Your task to perform on an android device: What is the news today? Image 0: 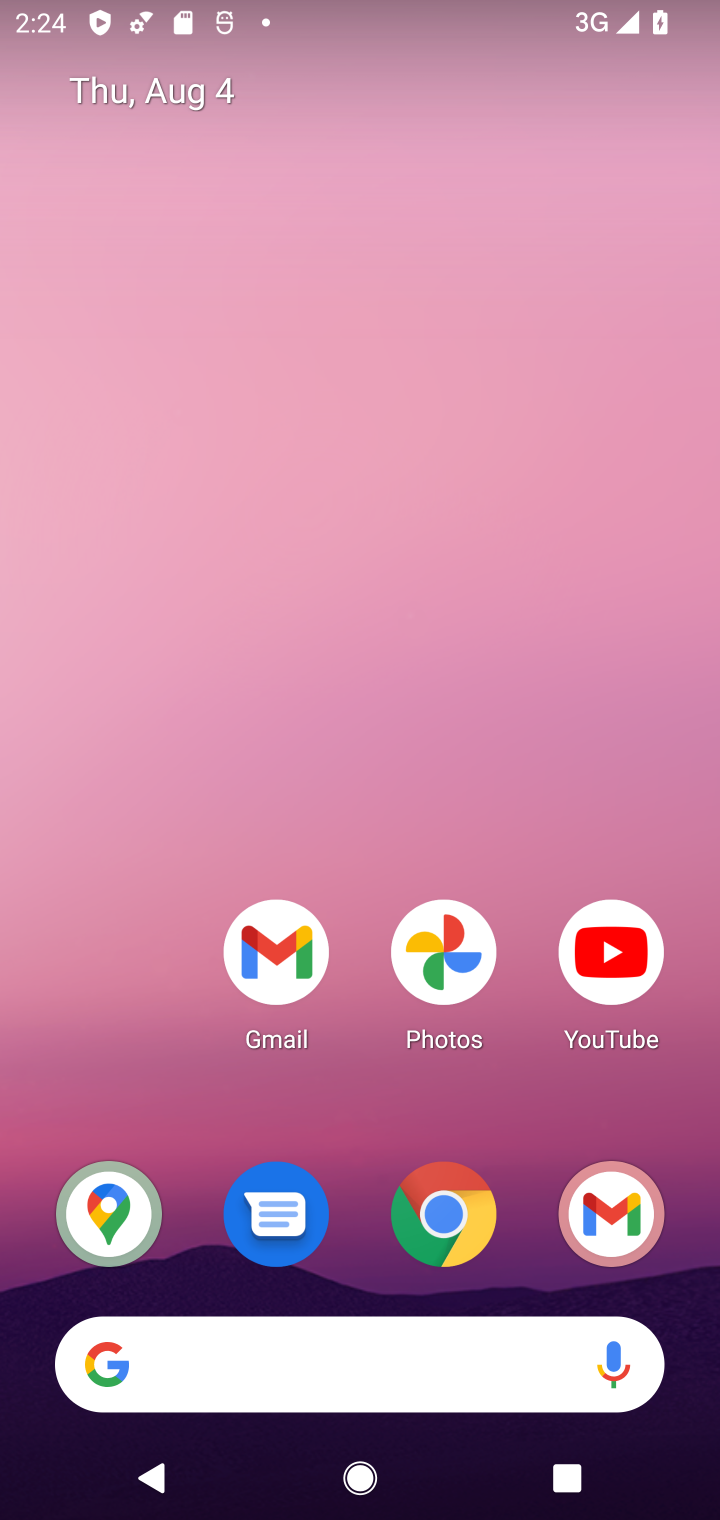
Step 0: drag from (45, 1099) to (127, 4)
Your task to perform on an android device: What is the news today? Image 1: 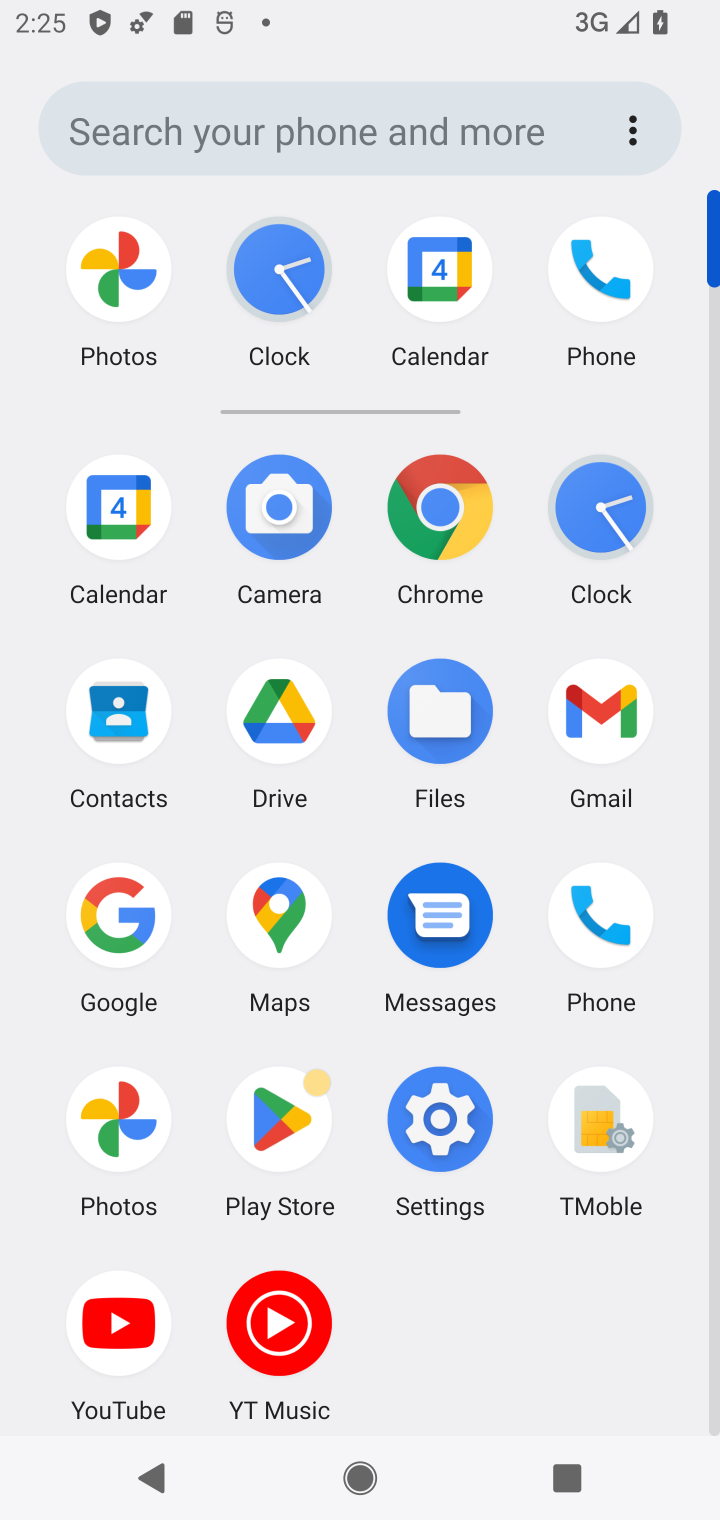
Step 1: click (145, 928)
Your task to perform on an android device: What is the news today? Image 2: 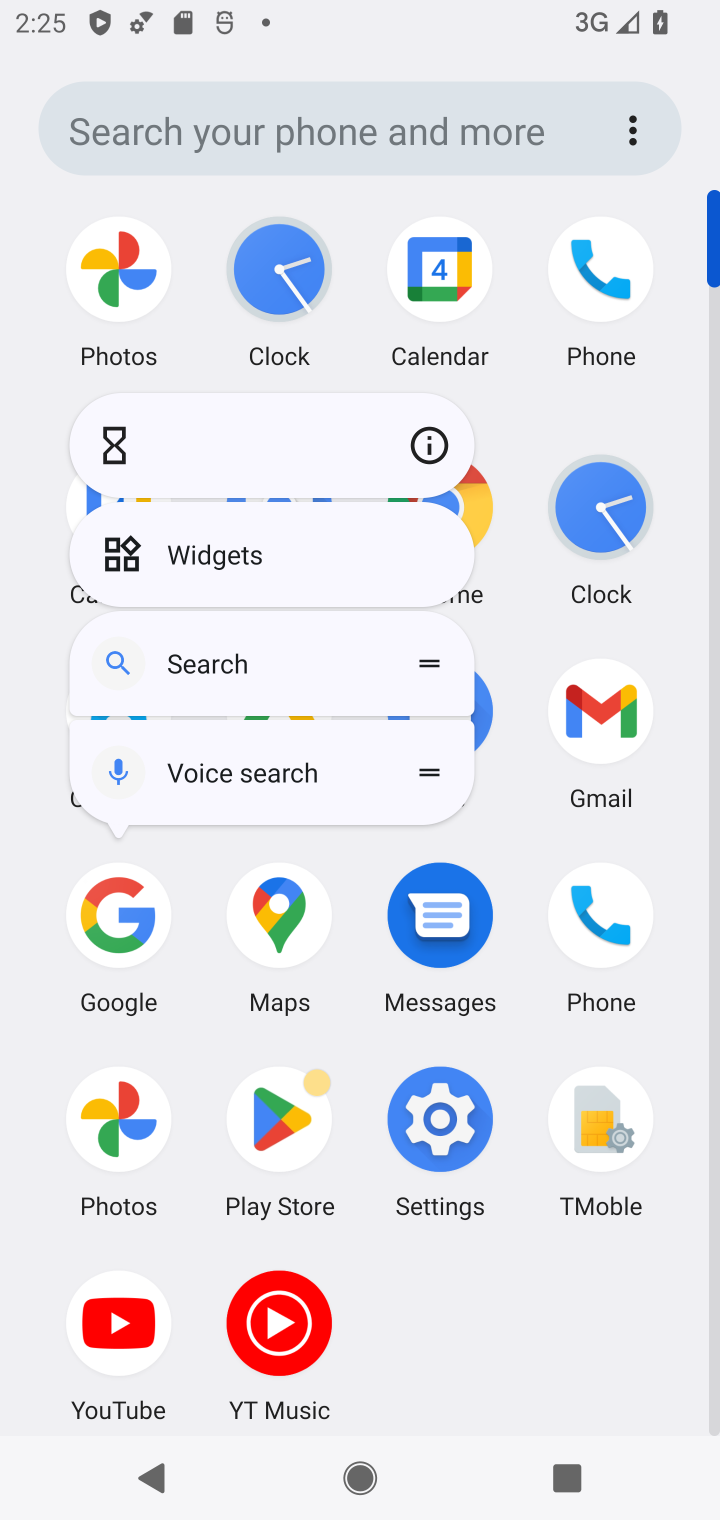
Step 2: click (160, 935)
Your task to perform on an android device: What is the news today? Image 3: 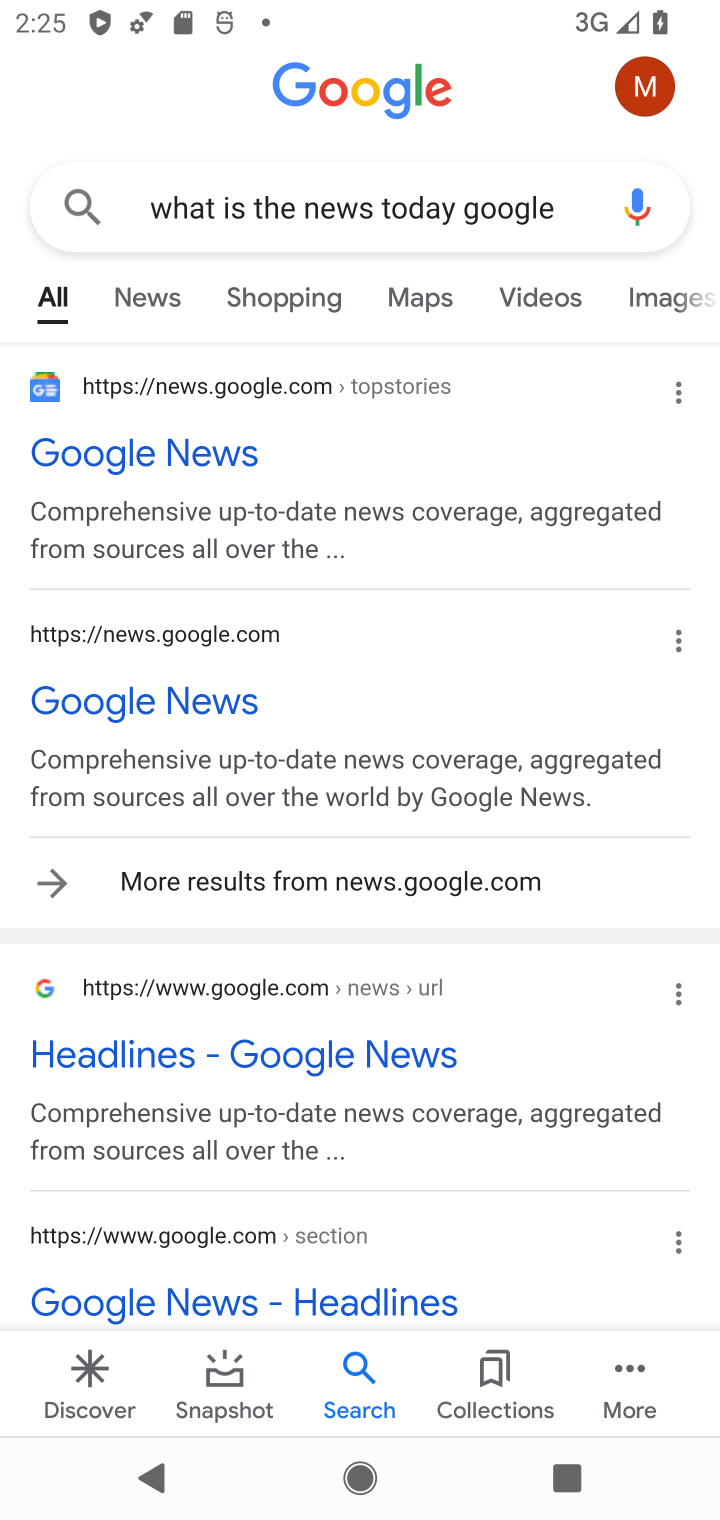
Step 3: press back button
Your task to perform on an android device: What is the news today? Image 4: 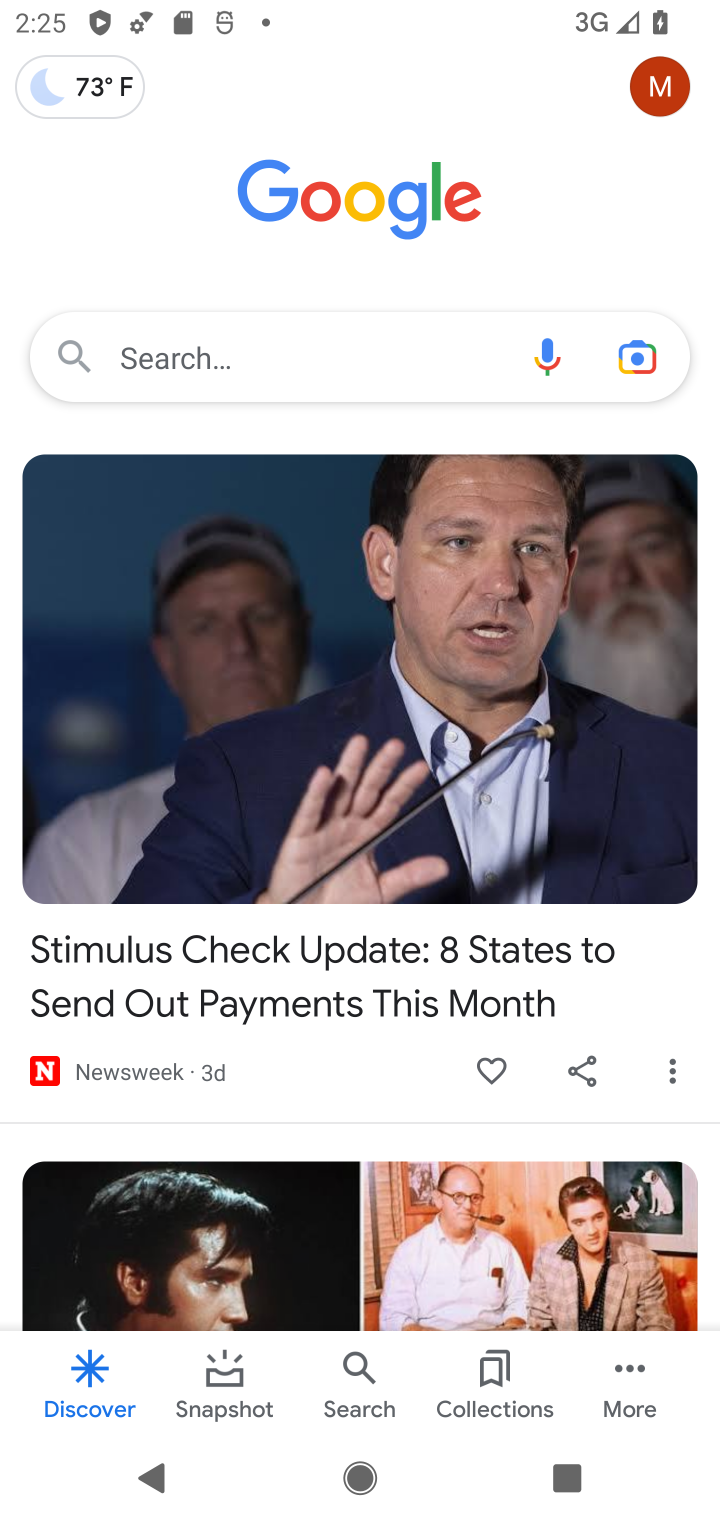
Step 4: click (205, 343)
Your task to perform on an android device: What is the news today? Image 5: 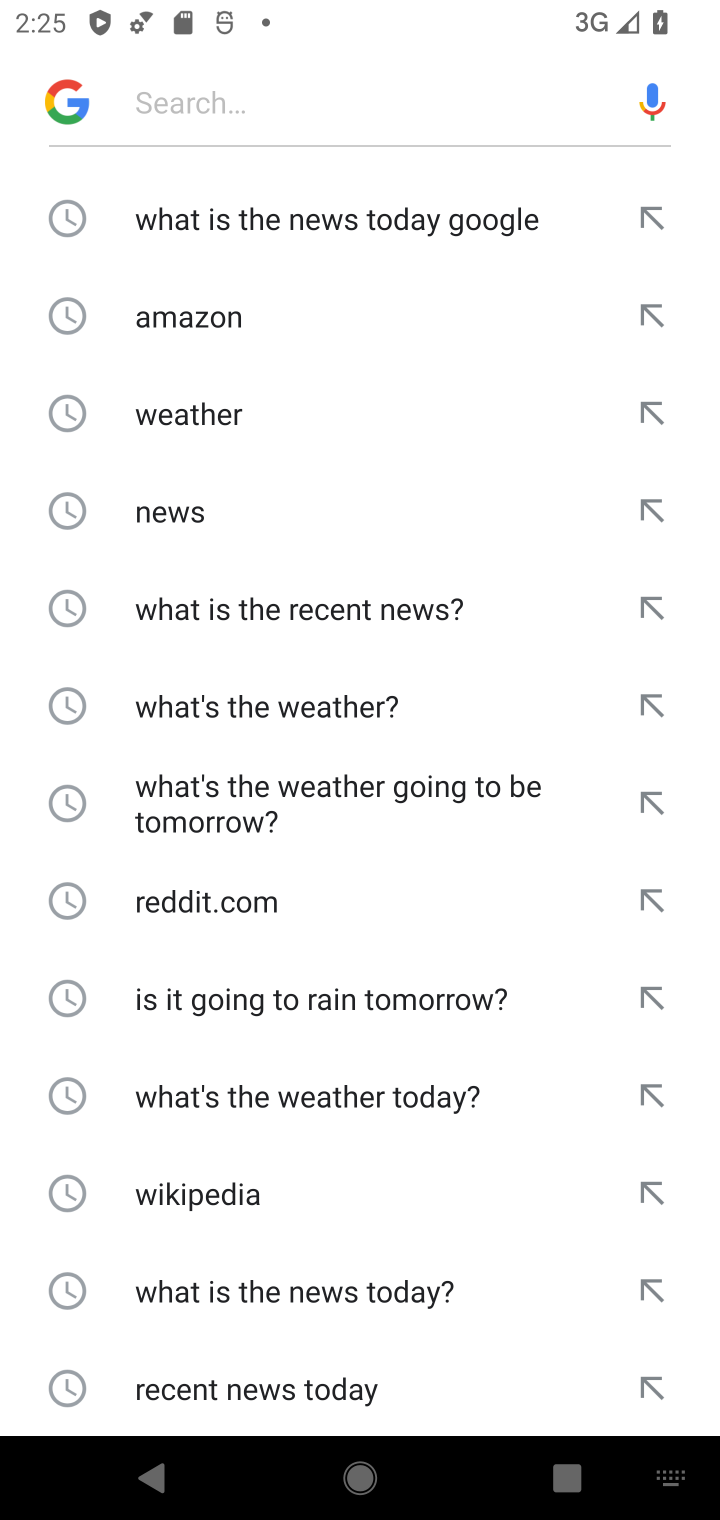
Step 5: click (311, 231)
Your task to perform on an android device: What is the news today? Image 6: 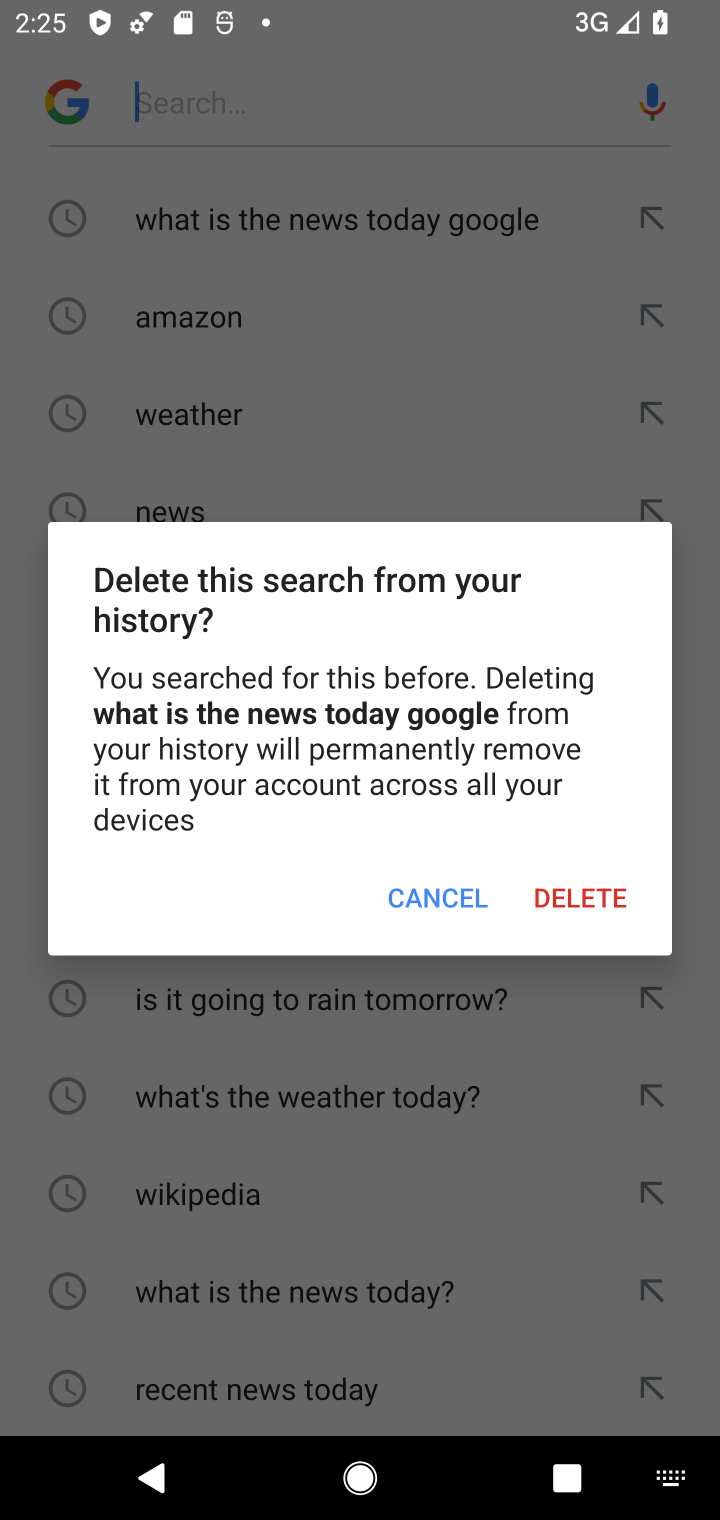
Step 6: click (406, 907)
Your task to perform on an android device: What is the news today? Image 7: 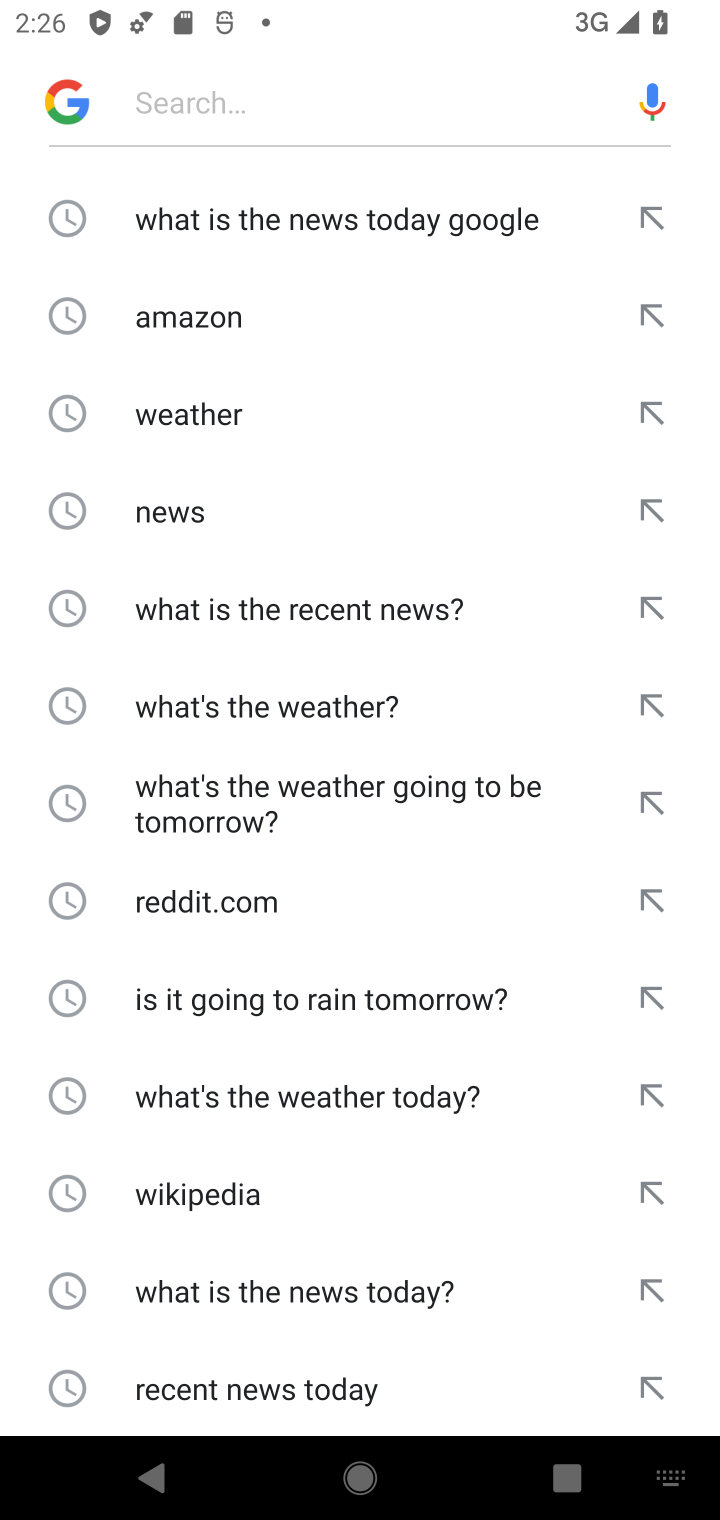
Step 7: click (255, 1322)
Your task to perform on an android device: What is the news today? Image 8: 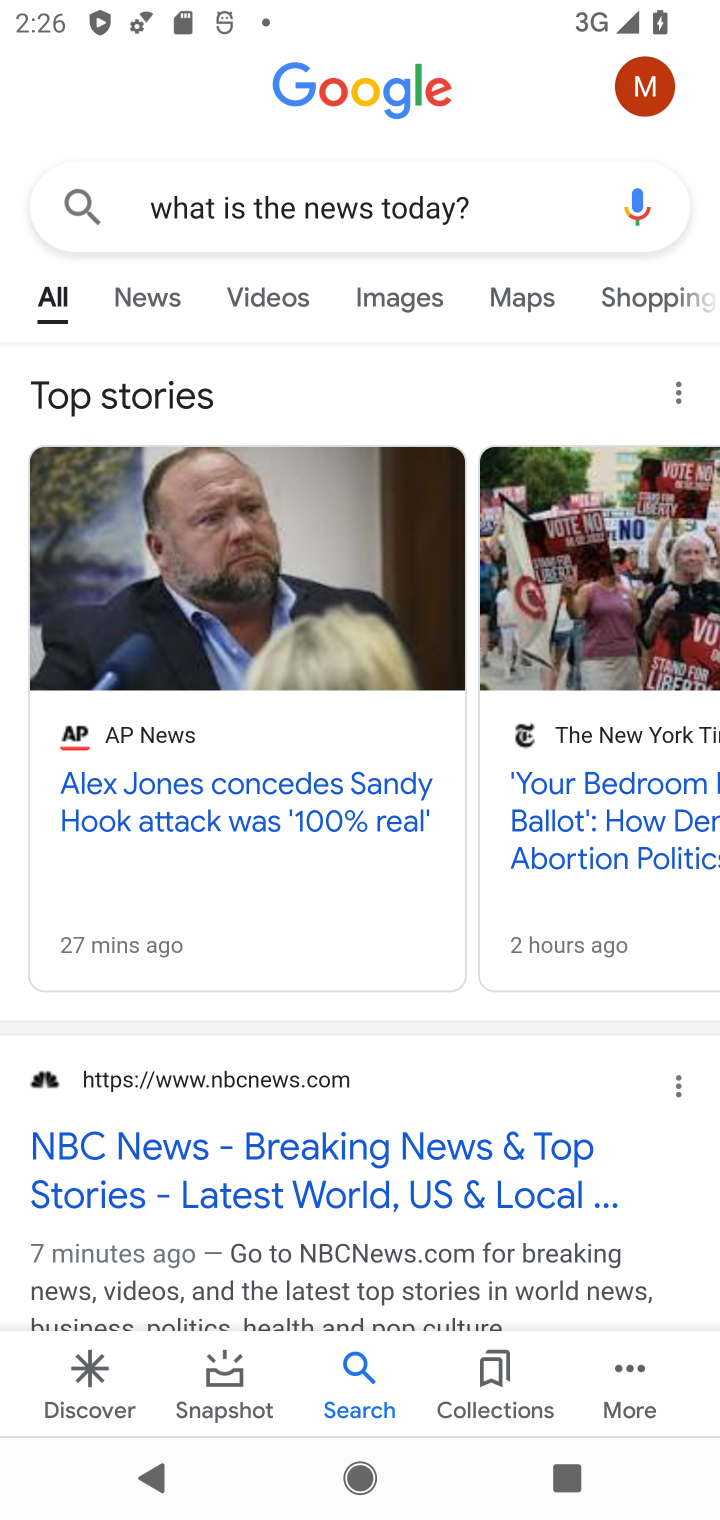
Step 8: task complete